Your task to perform on an android device: Open battery settings Image 0: 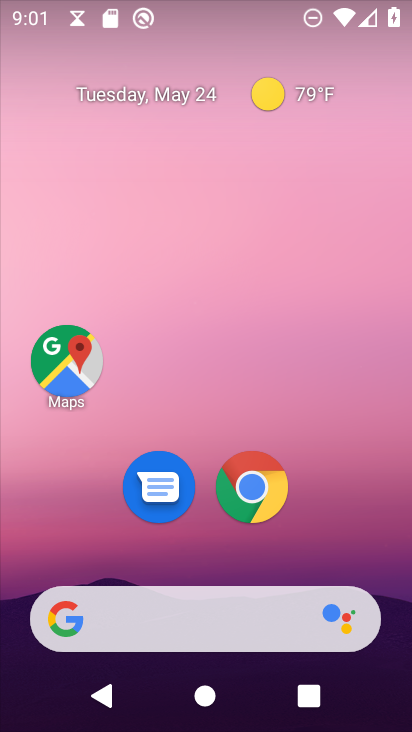
Step 0: press home button
Your task to perform on an android device: Open battery settings Image 1: 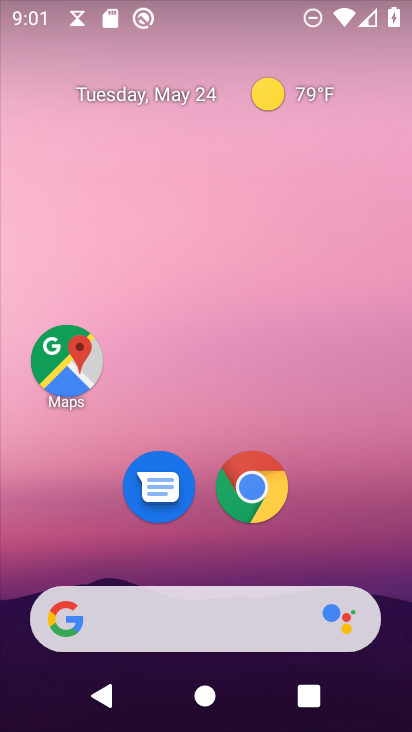
Step 1: drag from (92, 498) to (221, 121)
Your task to perform on an android device: Open battery settings Image 2: 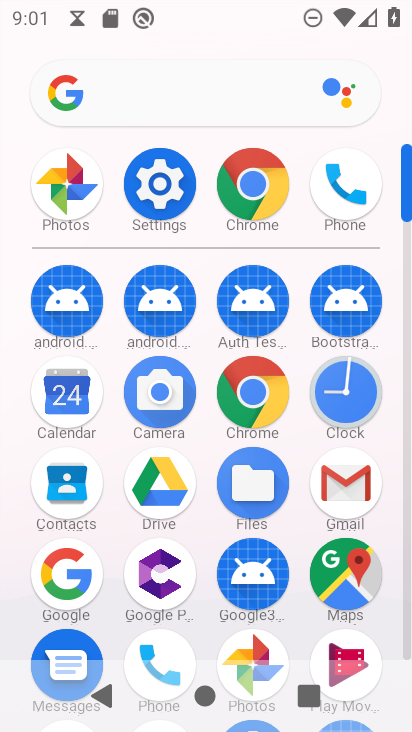
Step 2: click (151, 205)
Your task to perform on an android device: Open battery settings Image 3: 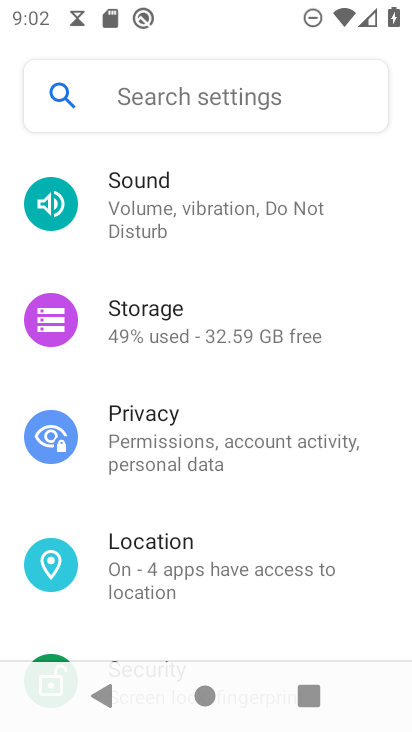
Step 3: drag from (254, 206) to (224, 594)
Your task to perform on an android device: Open battery settings Image 4: 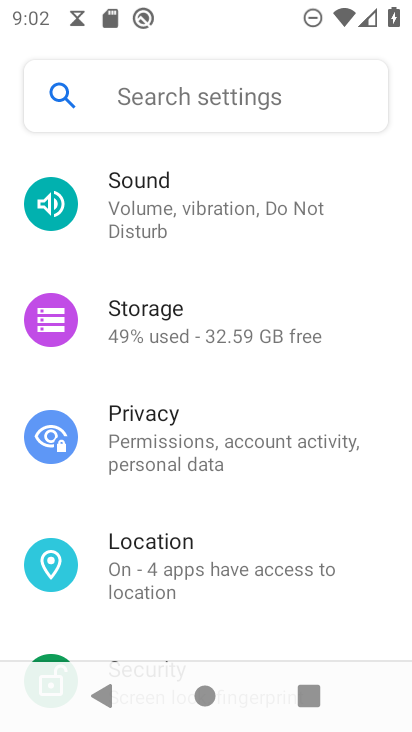
Step 4: drag from (100, 205) to (114, 569)
Your task to perform on an android device: Open battery settings Image 5: 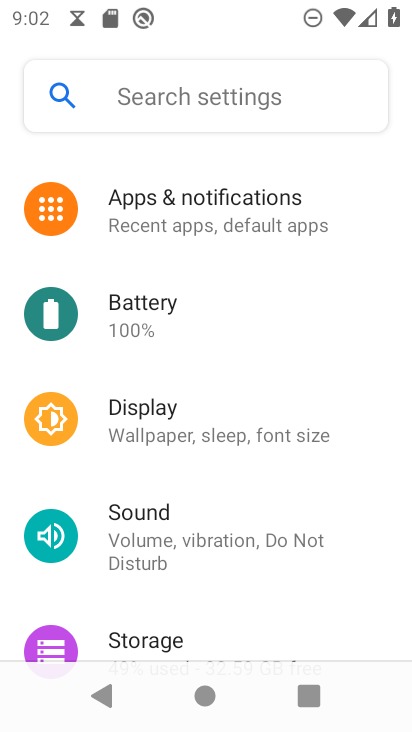
Step 5: click (184, 300)
Your task to perform on an android device: Open battery settings Image 6: 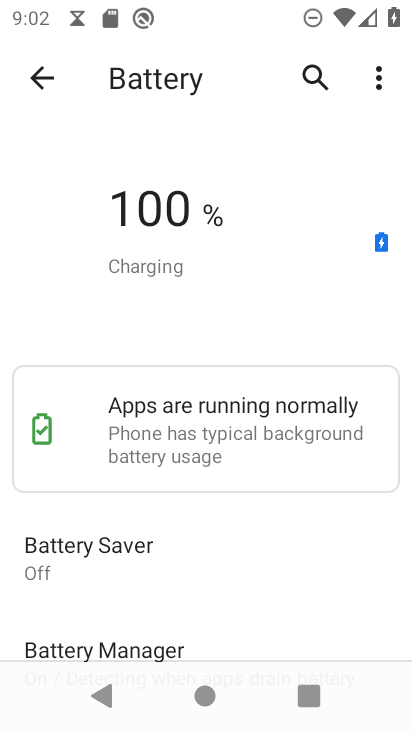
Step 6: task complete